Your task to perform on an android device: Go to Amazon Image 0: 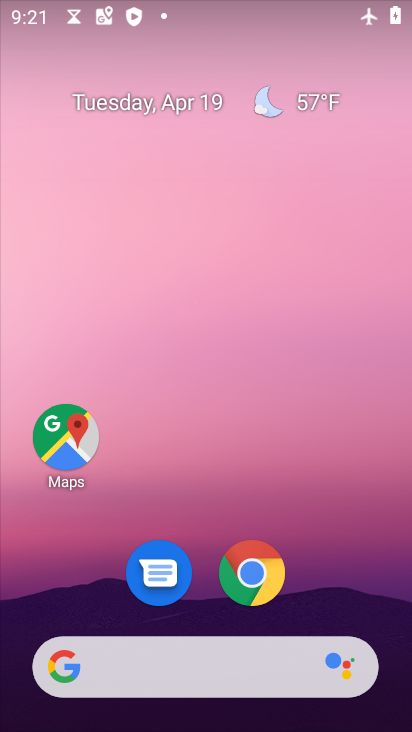
Step 0: click (246, 574)
Your task to perform on an android device: Go to Amazon Image 1: 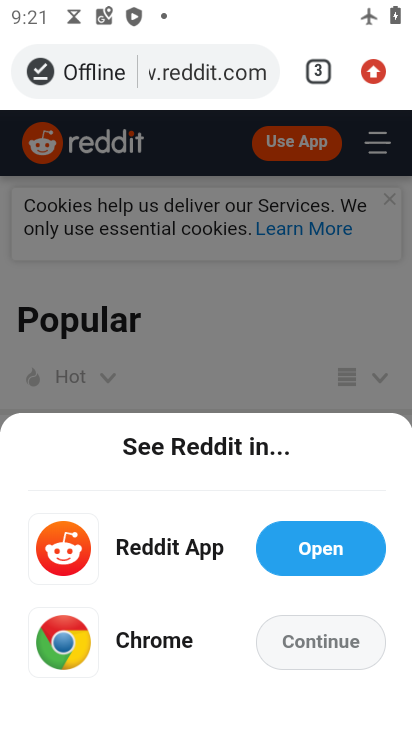
Step 1: click (316, 69)
Your task to perform on an android device: Go to Amazon Image 2: 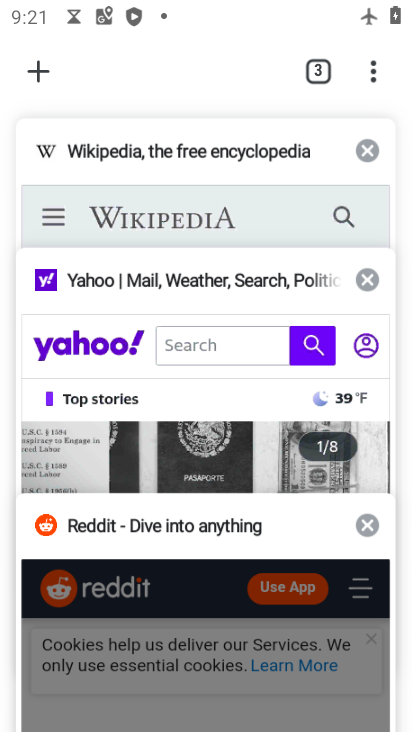
Step 2: click (316, 69)
Your task to perform on an android device: Go to Amazon Image 3: 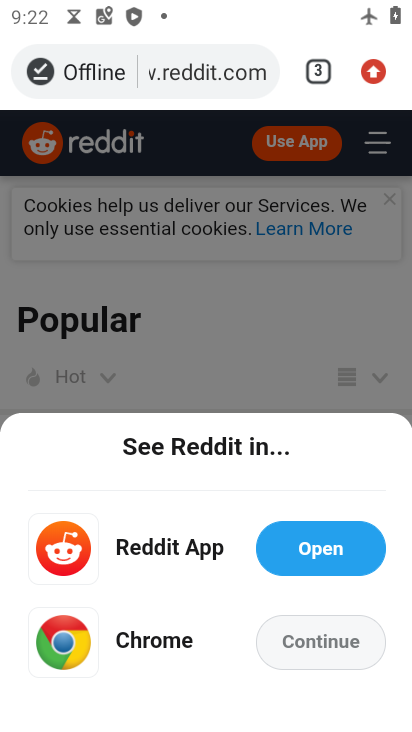
Step 3: click (313, 66)
Your task to perform on an android device: Go to Amazon Image 4: 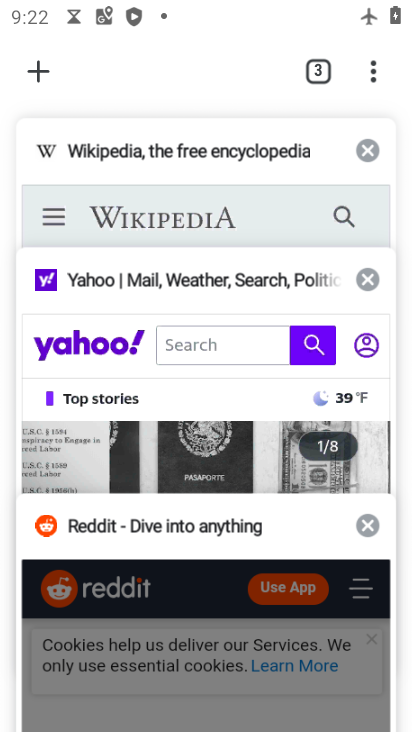
Step 4: click (42, 72)
Your task to perform on an android device: Go to Amazon Image 5: 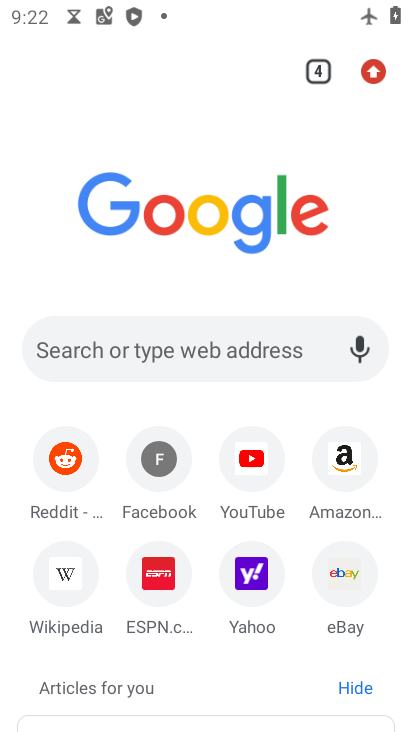
Step 5: click (346, 464)
Your task to perform on an android device: Go to Amazon Image 6: 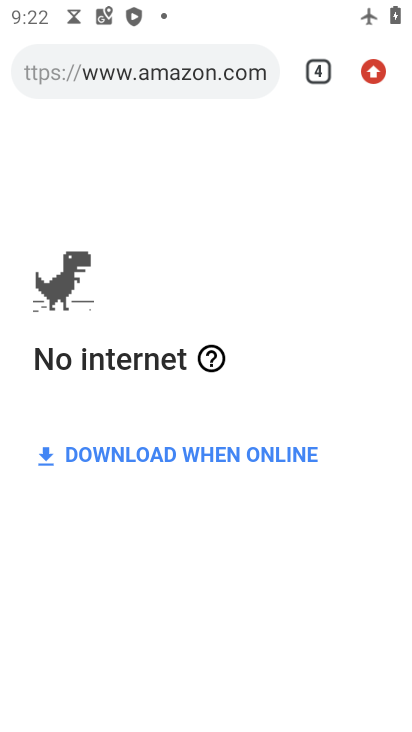
Step 6: task complete